Your task to perform on an android device: Add razer blackwidow to the cart on costco Image 0: 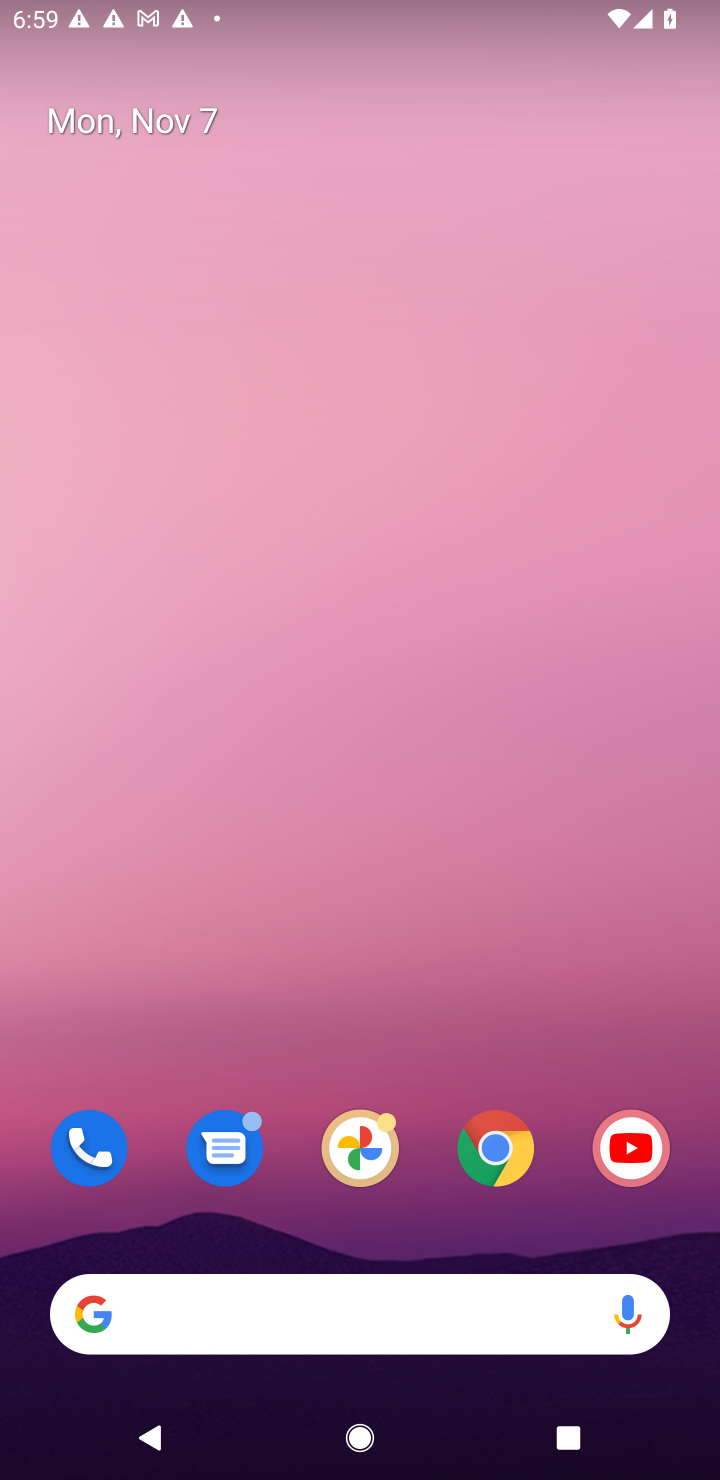
Step 0: click (494, 1138)
Your task to perform on an android device: Add razer blackwidow to the cart on costco Image 1: 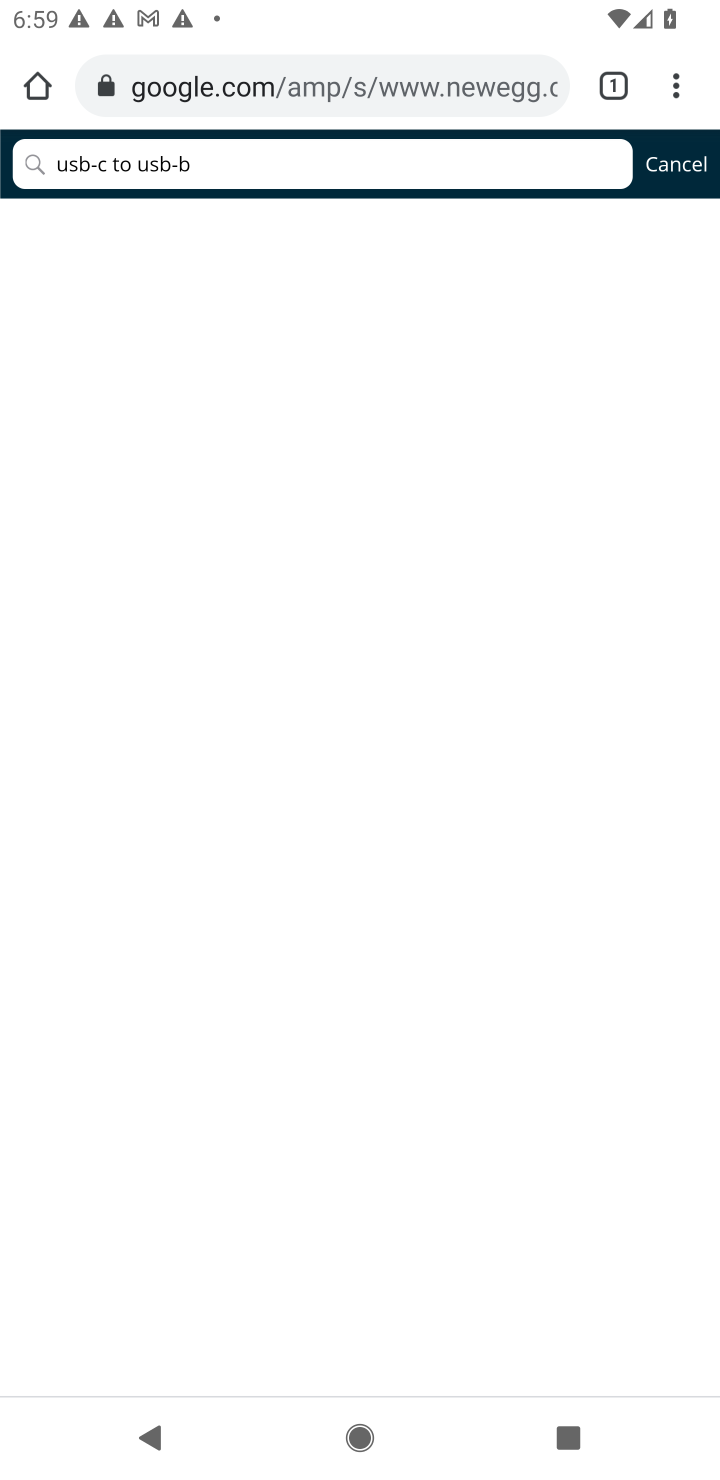
Step 1: click (484, 88)
Your task to perform on an android device: Add razer blackwidow to the cart on costco Image 2: 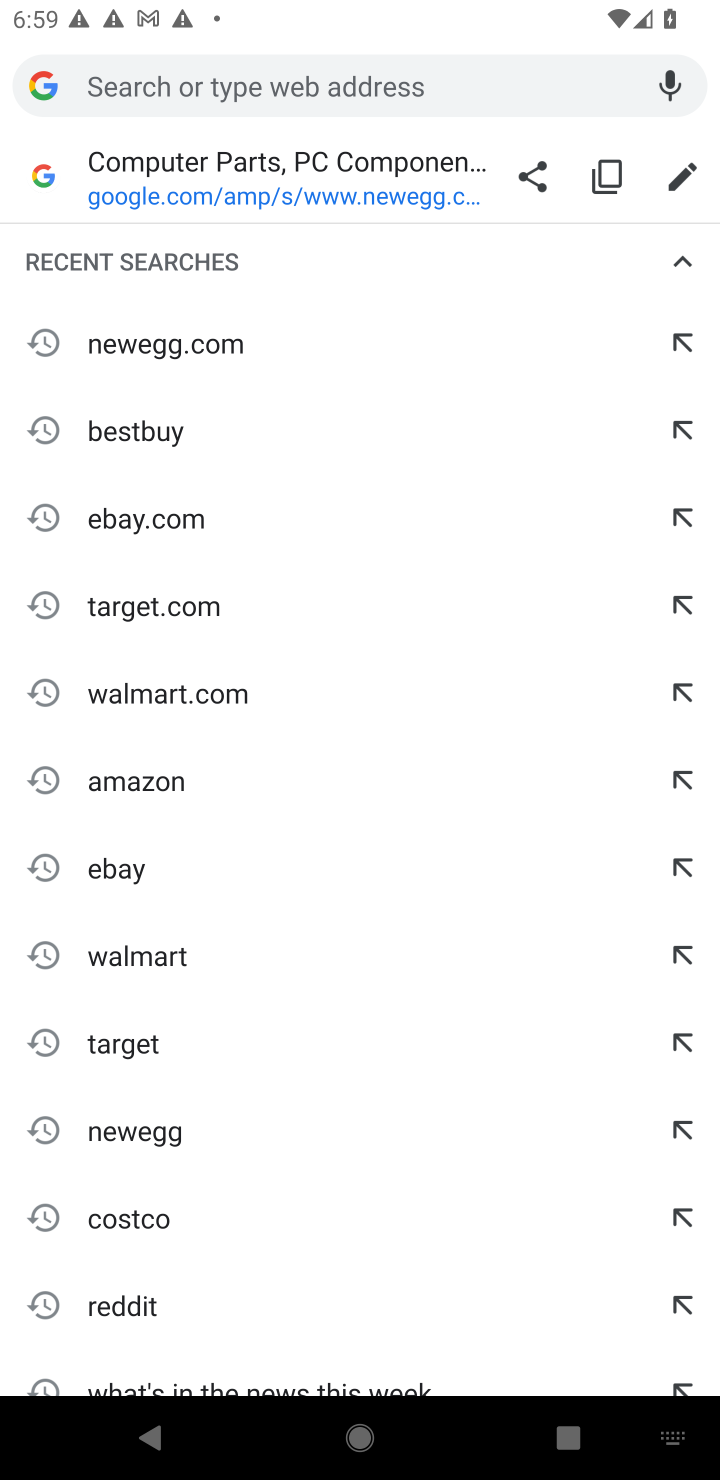
Step 2: type "costco"
Your task to perform on an android device: Add razer blackwidow to the cart on costco Image 3: 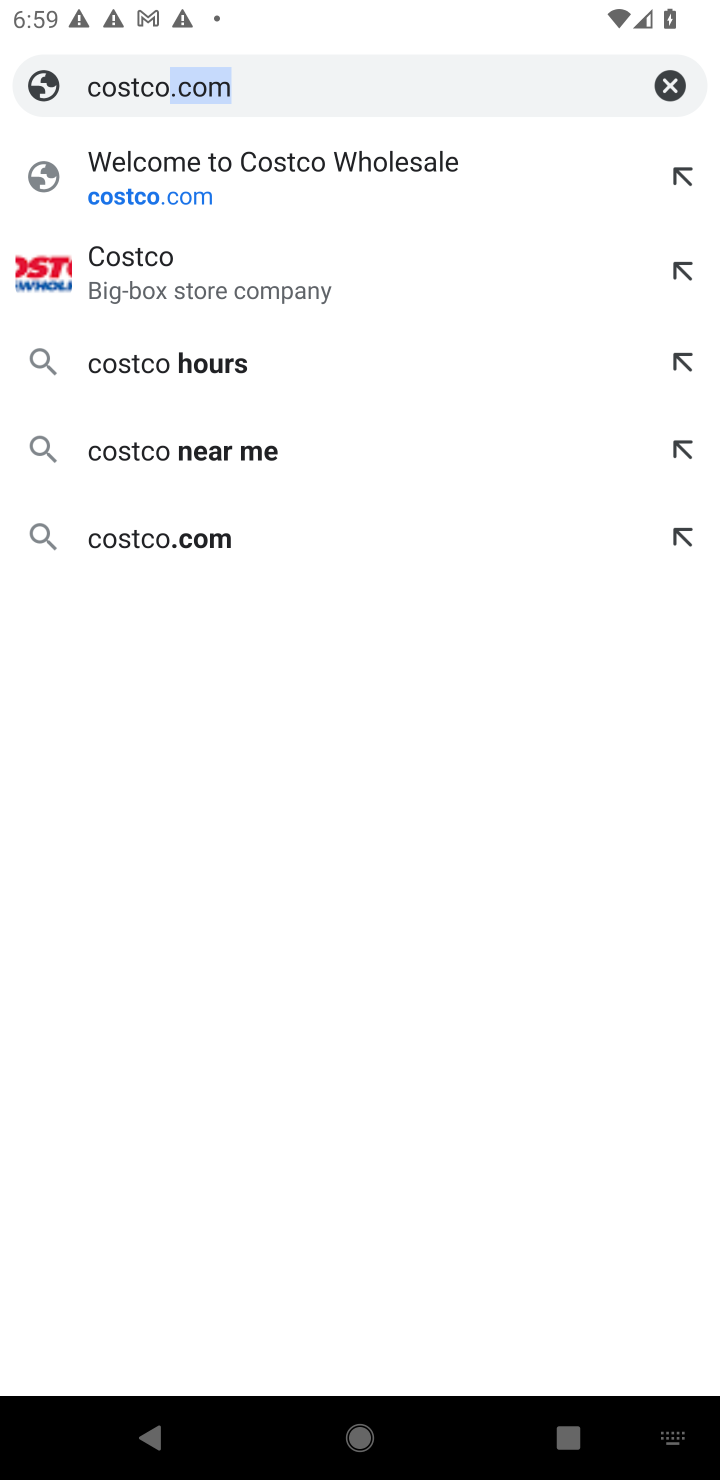
Step 3: click (443, 80)
Your task to perform on an android device: Add razer blackwidow to the cart on costco Image 4: 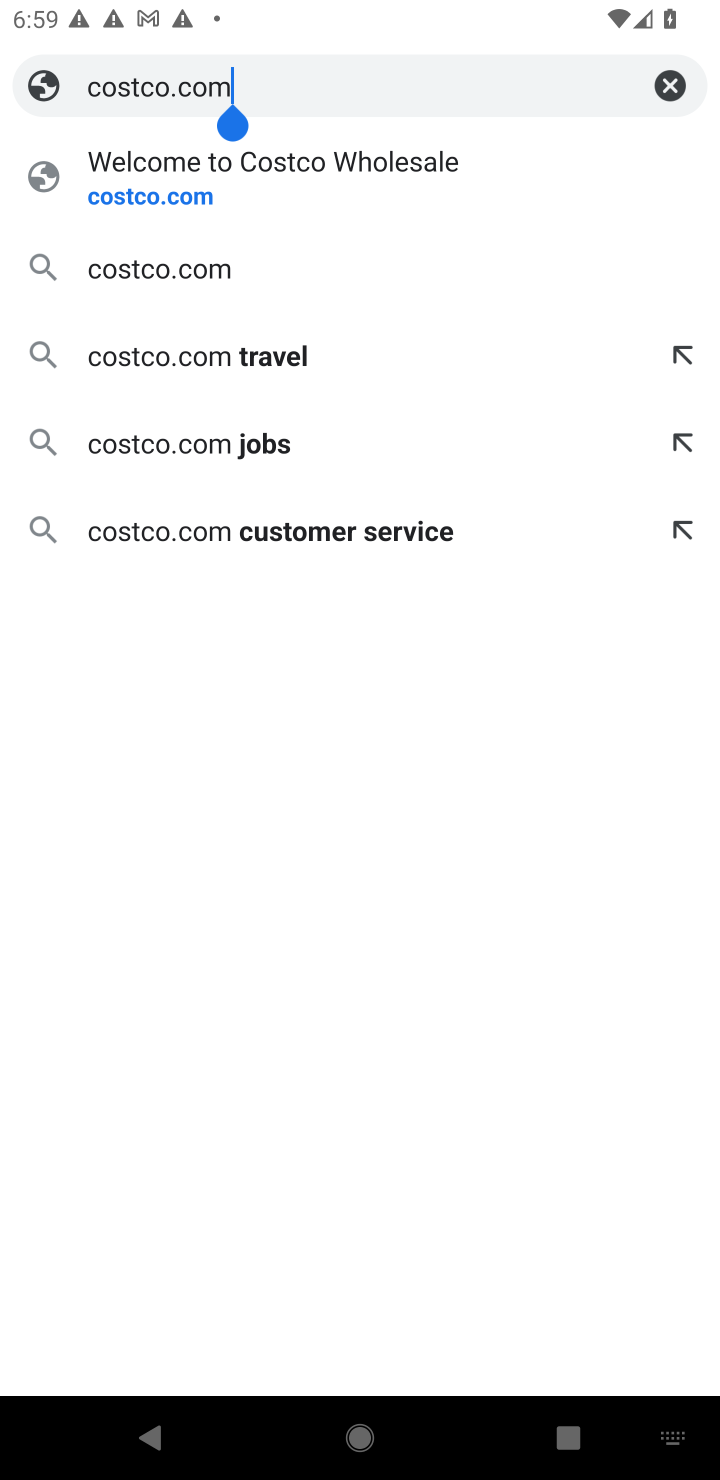
Step 4: click (218, 278)
Your task to perform on an android device: Add razer blackwidow to the cart on costco Image 5: 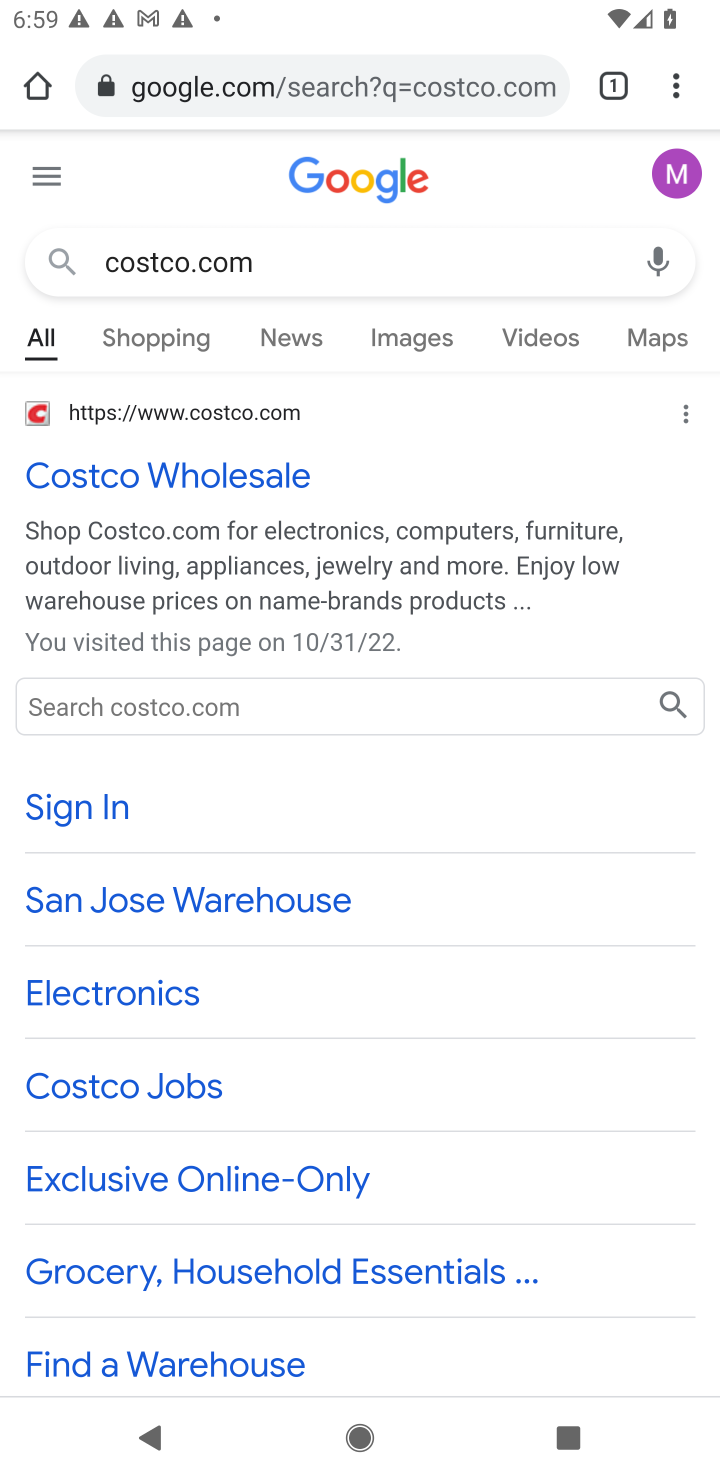
Step 5: click (236, 403)
Your task to perform on an android device: Add razer blackwidow to the cart on costco Image 6: 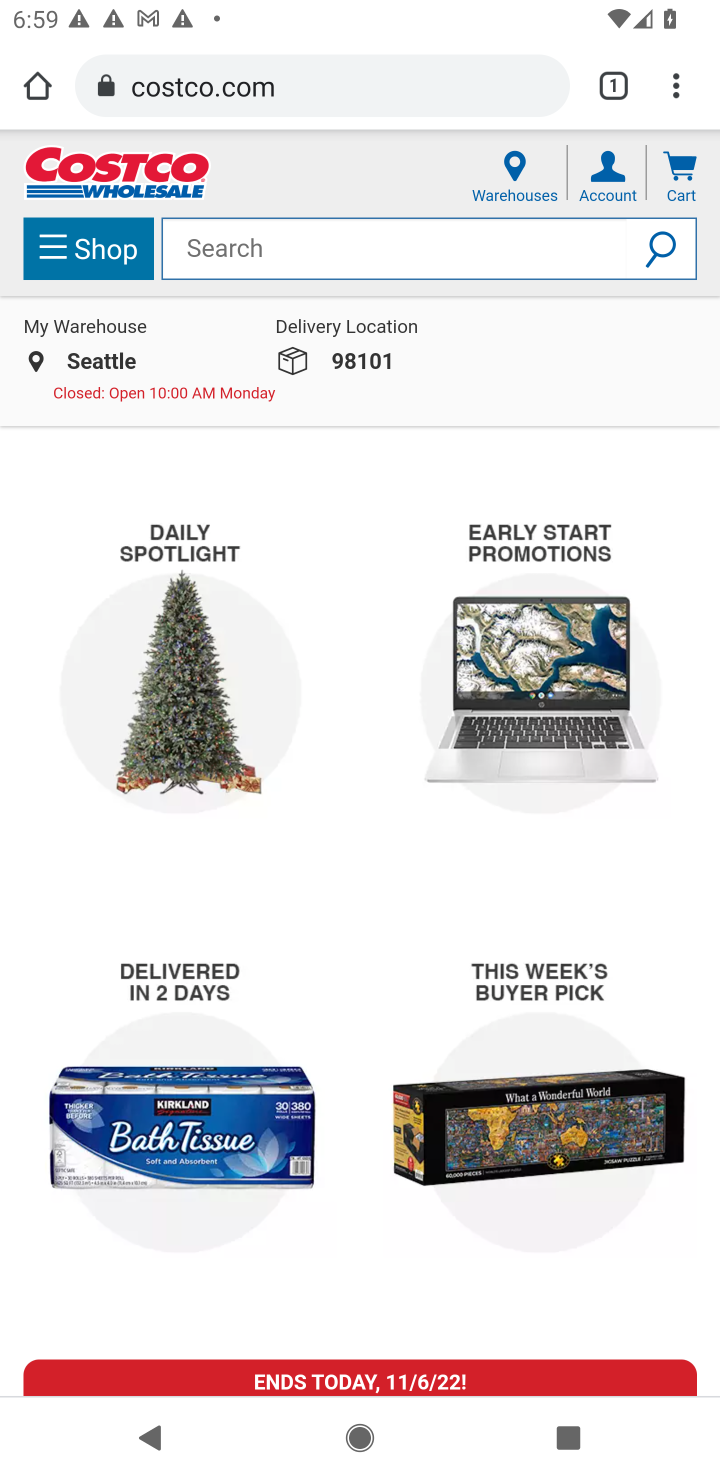
Step 6: click (536, 262)
Your task to perform on an android device: Add razer blackwidow to the cart on costco Image 7: 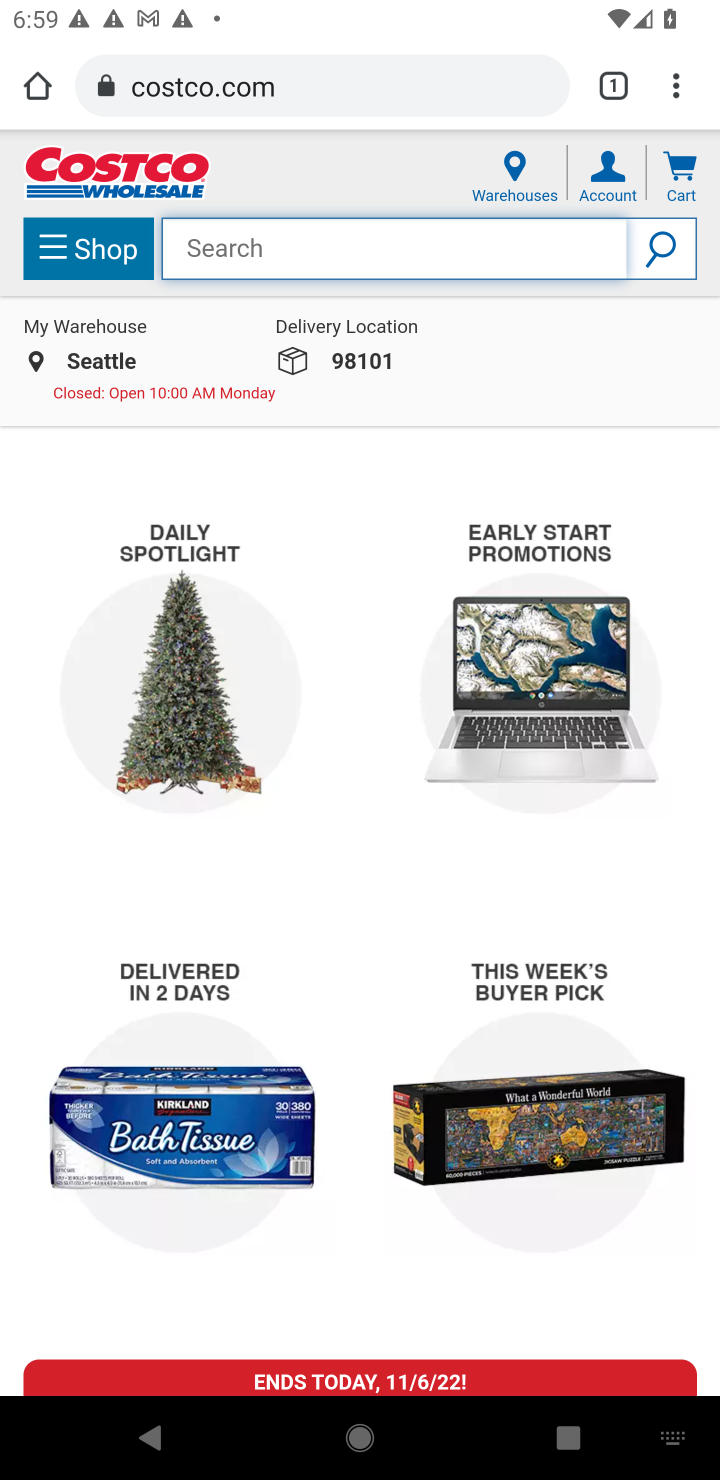
Step 7: type "razer blackwidow"
Your task to perform on an android device: Add razer blackwidow to the cart on costco Image 8: 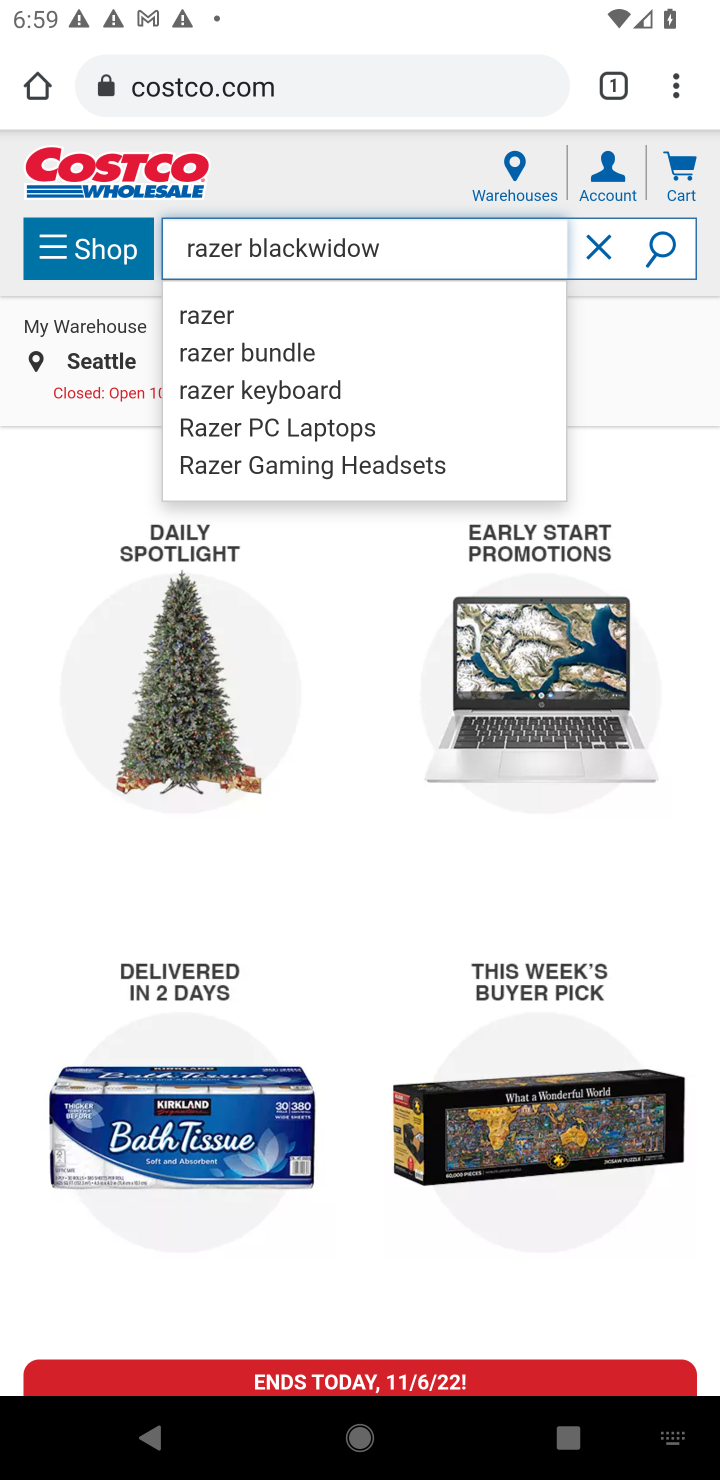
Step 8: click (623, 410)
Your task to perform on an android device: Add razer blackwidow to the cart on costco Image 9: 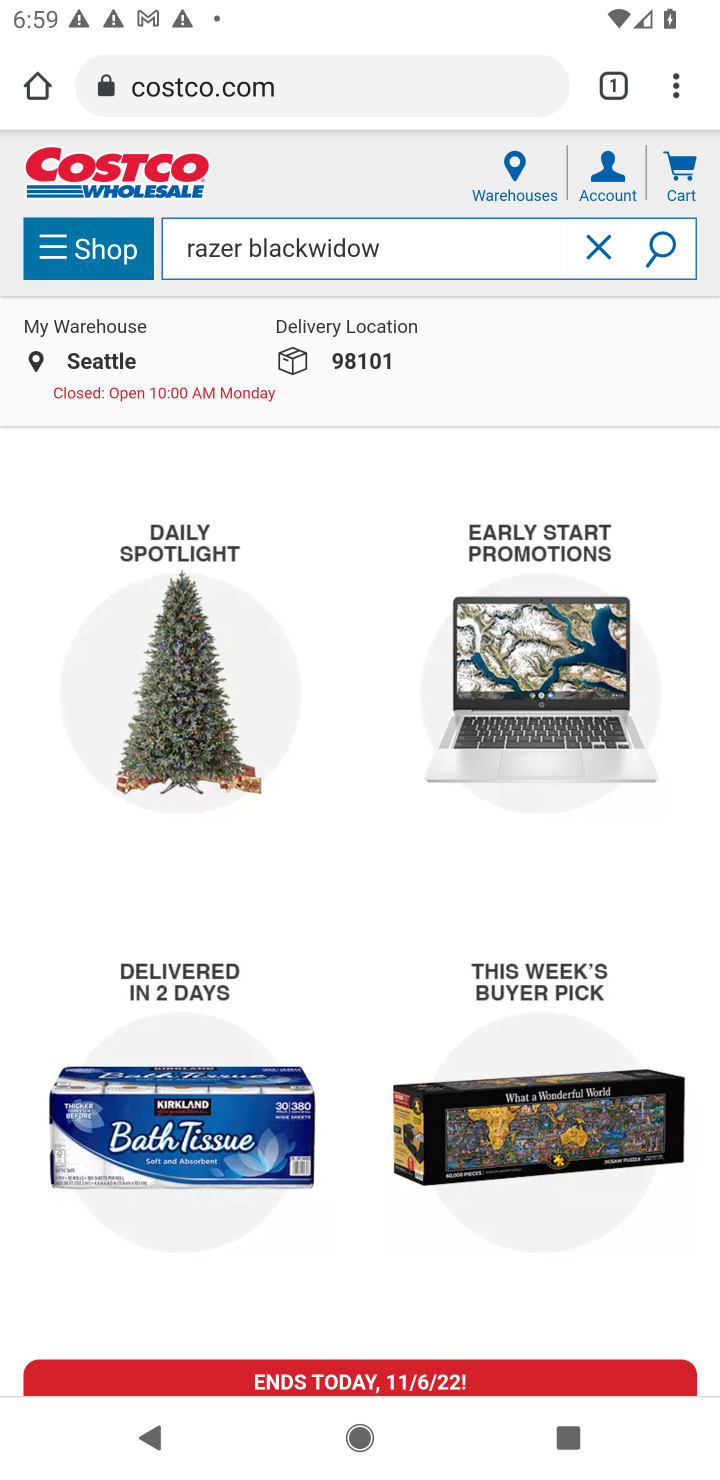
Step 9: task complete